Your task to perform on an android device: open device folders in google photos Image 0: 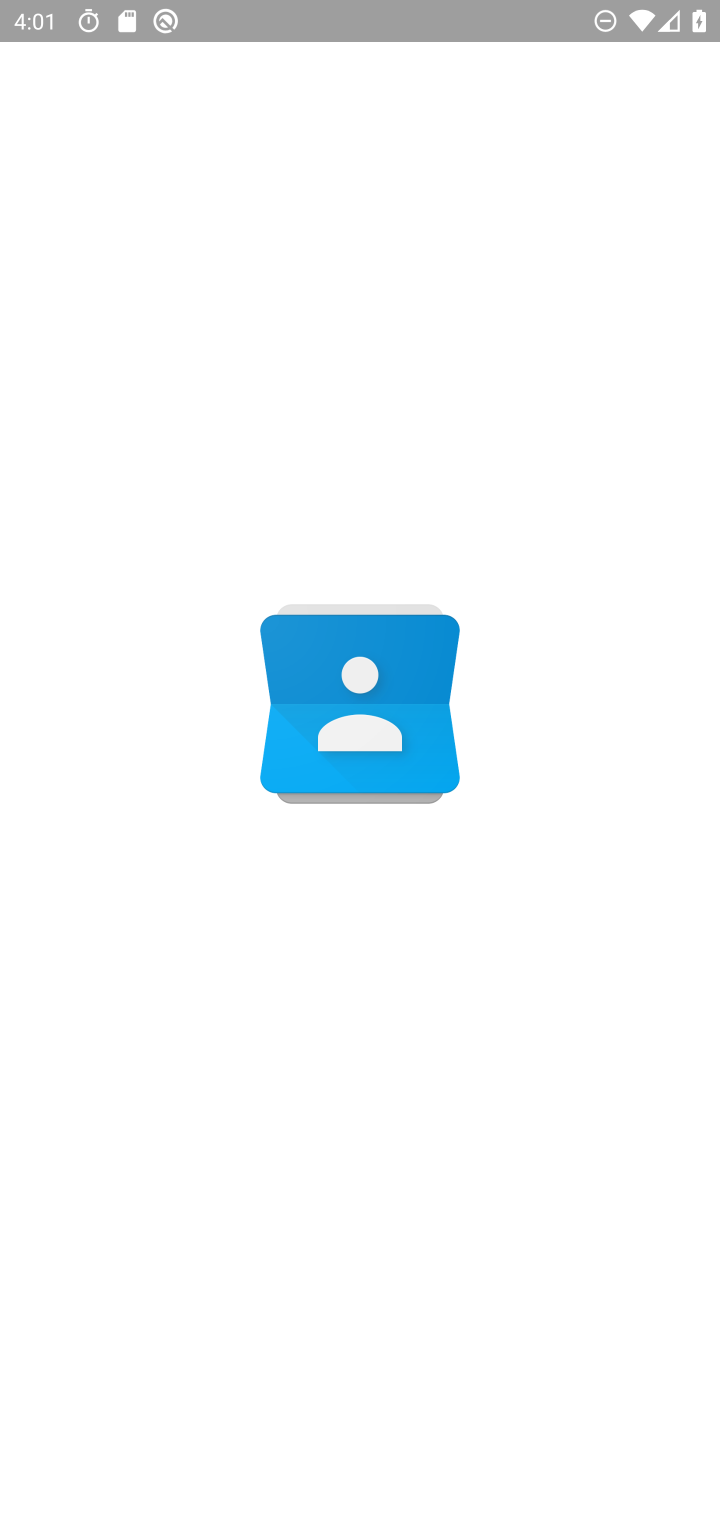
Step 0: press back button
Your task to perform on an android device: open device folders in google photos Image 1: 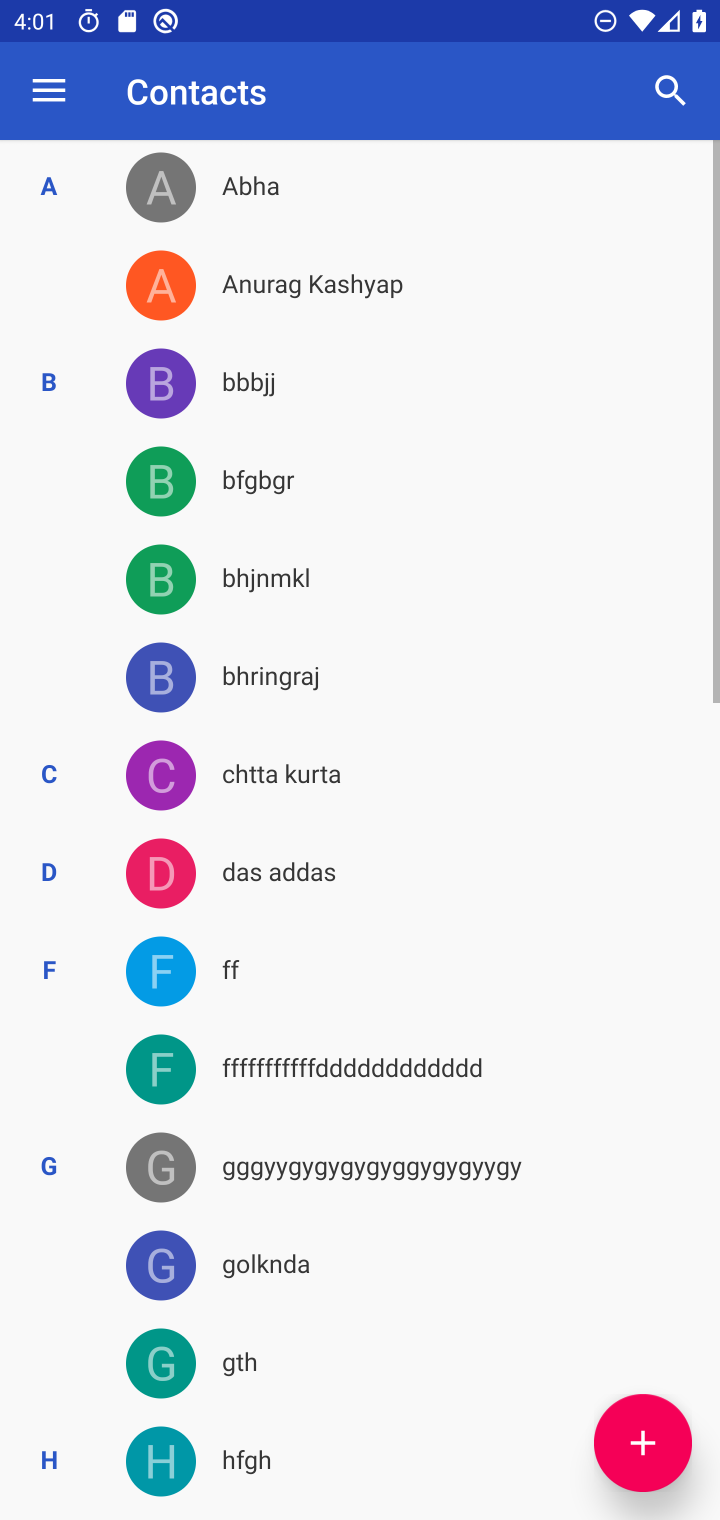
Step 1: press back button
Your task to perform on an android device: open device folders in google photos Image 2: 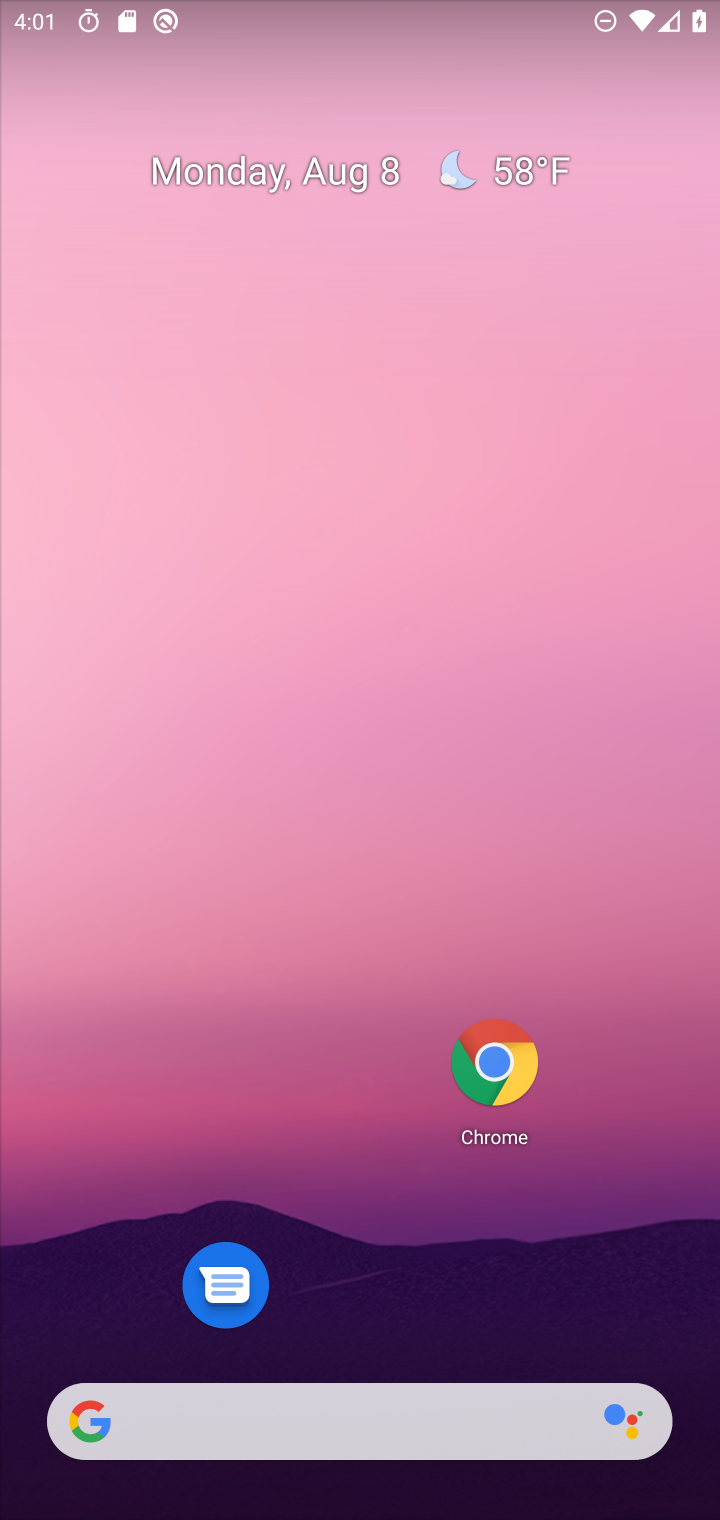
Step 2: press back button
Your task to perform on an android device: open device folders in google photos Image 3: 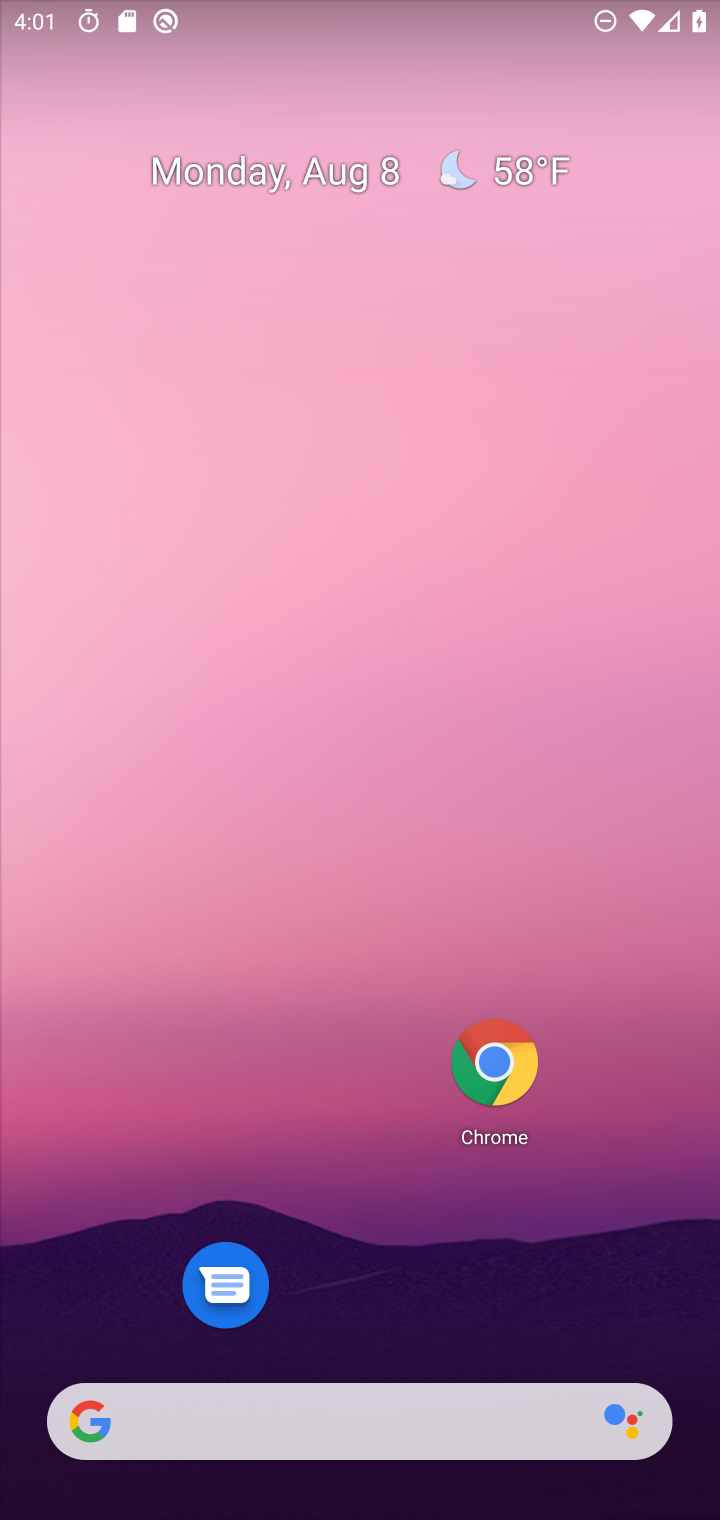
Step 3: drag from (356, 1341) to (518, 133)
Your task to perform on an android device: open device folders in google photos Image 4: 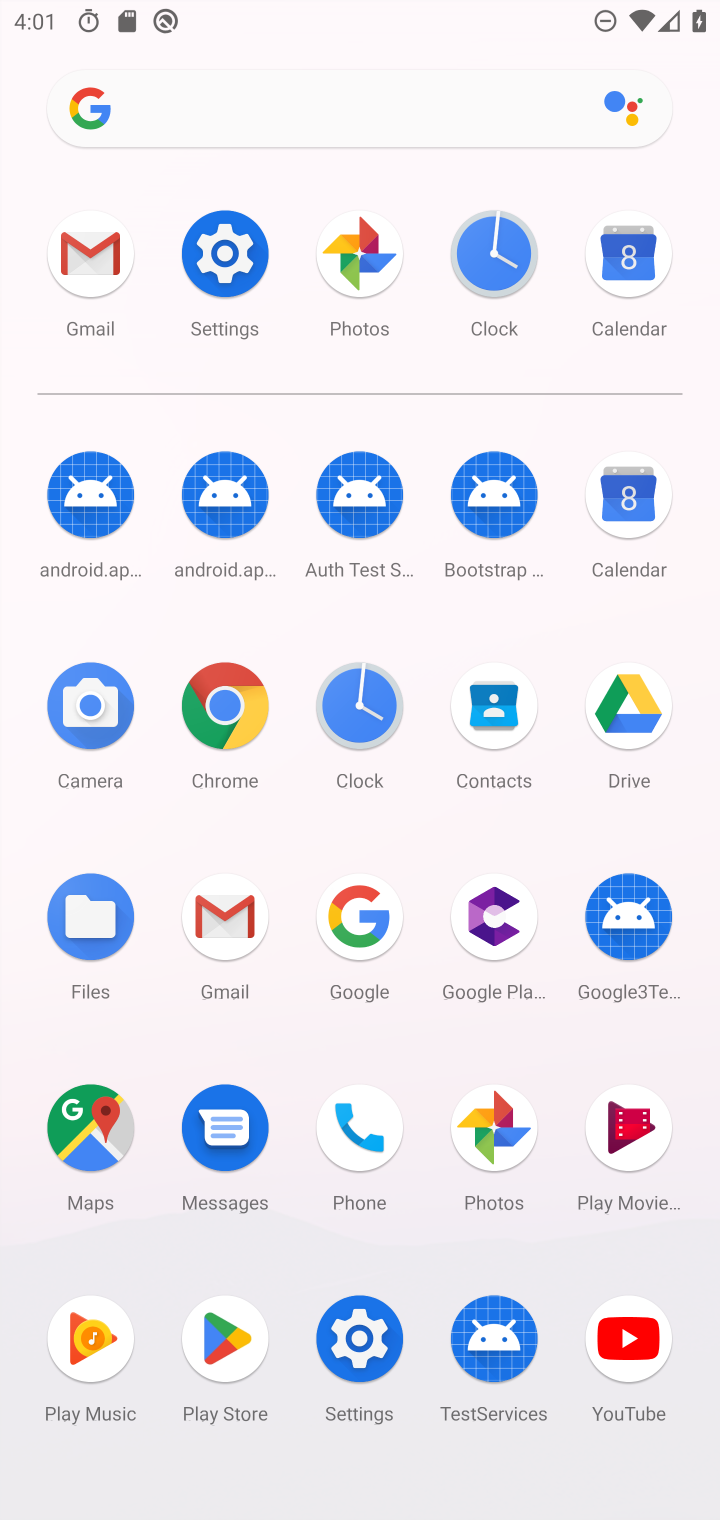
Step 4: click (496, 1112)
Your task to perform on an android device: open device folders in google photos Image 5: 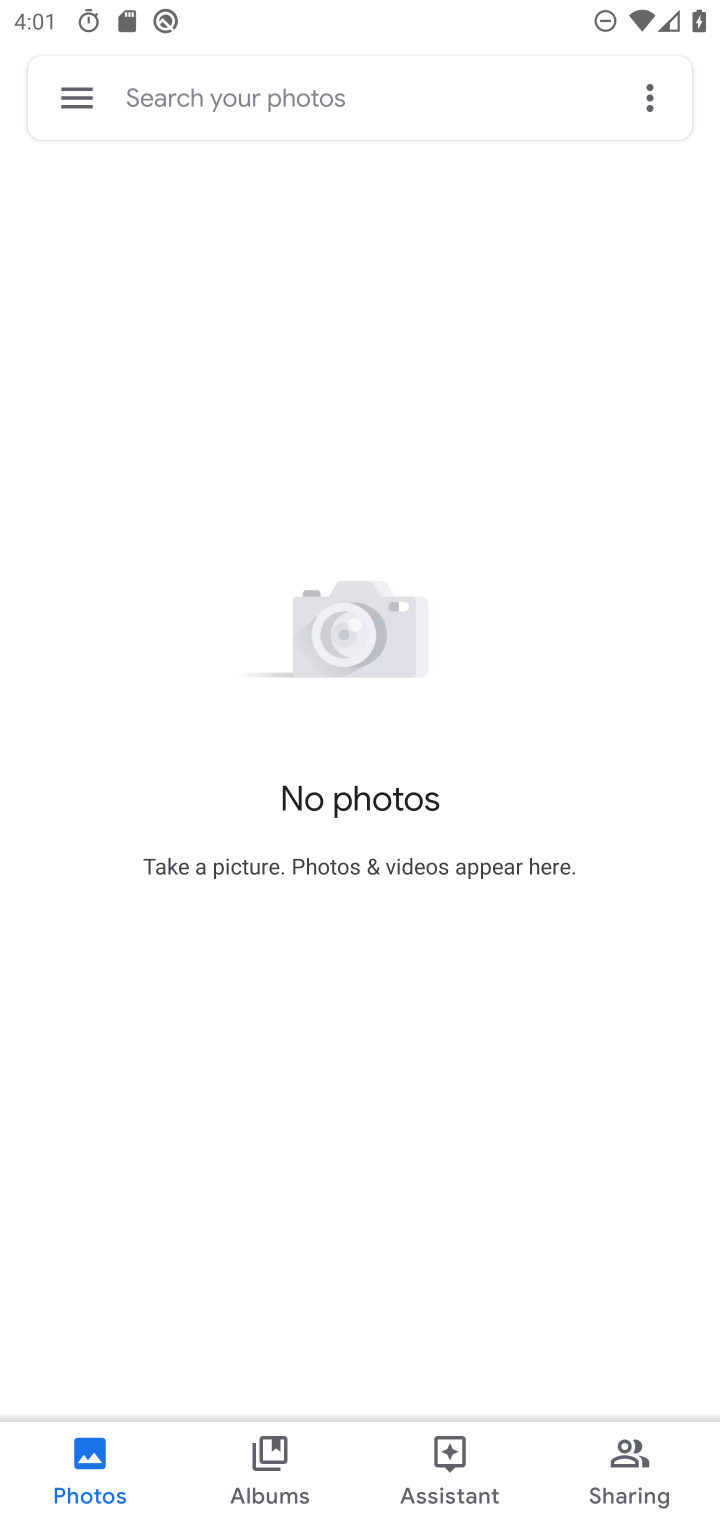
Step 5: click (68, 92)
Your task to perform on an android device: open device folders in google photos Image 6: 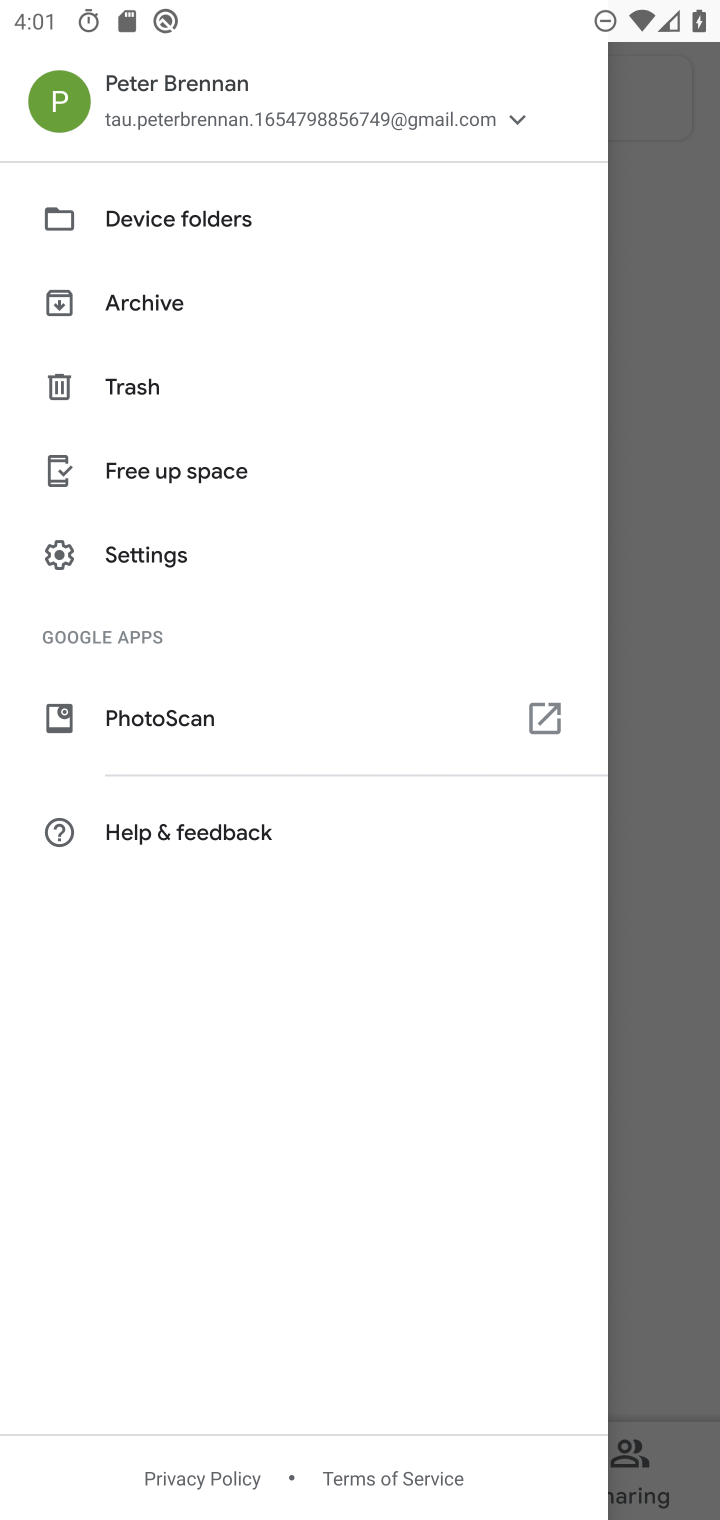
Step 6: click (161, 193)
Your task to perform on an android device: open device folders in google photos Image 7: 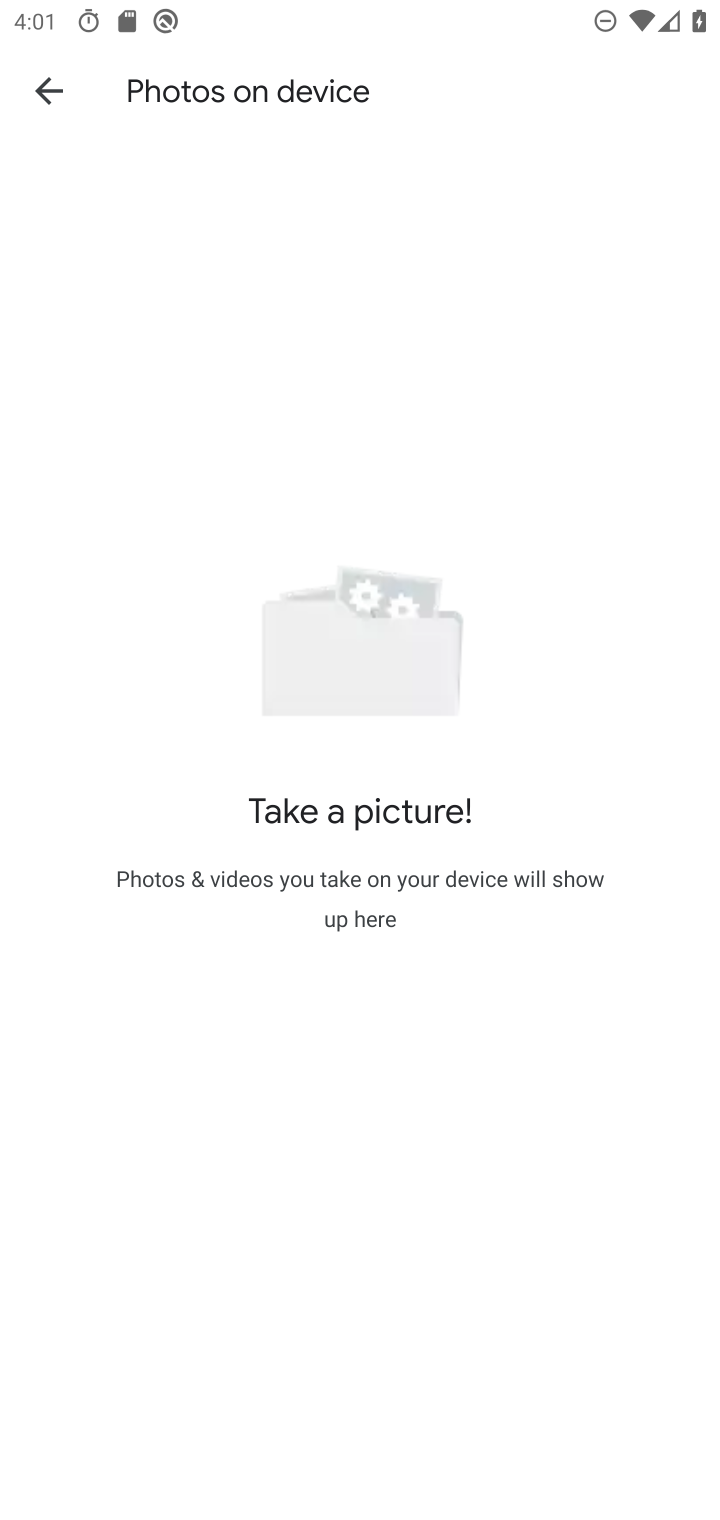
Step 7: task complete